Your task to perform on an android device: Go to Wikipedia Image 0: 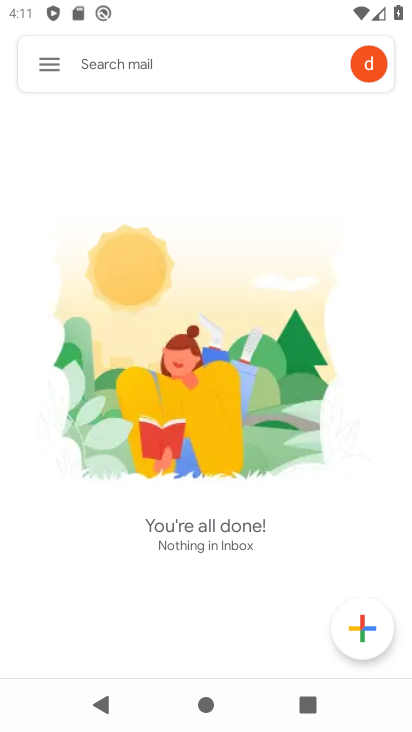
Step 0: press home button
Your task to perform on an android device: Go to Wikipedia Image 1: 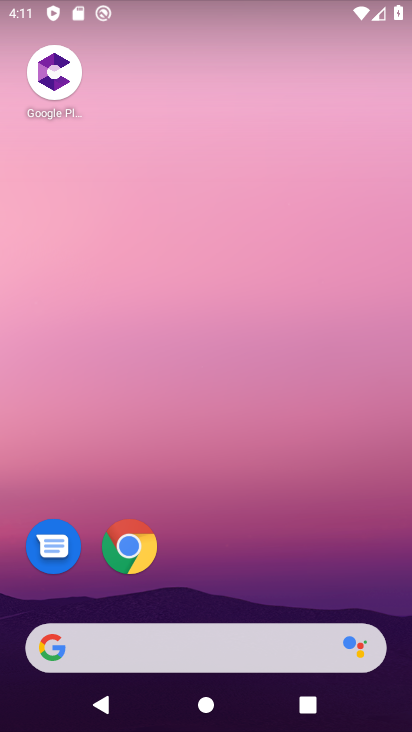
Step 1: click (129, 546)
Your task to perform on an android device: Go to Wikipedia Image 2: 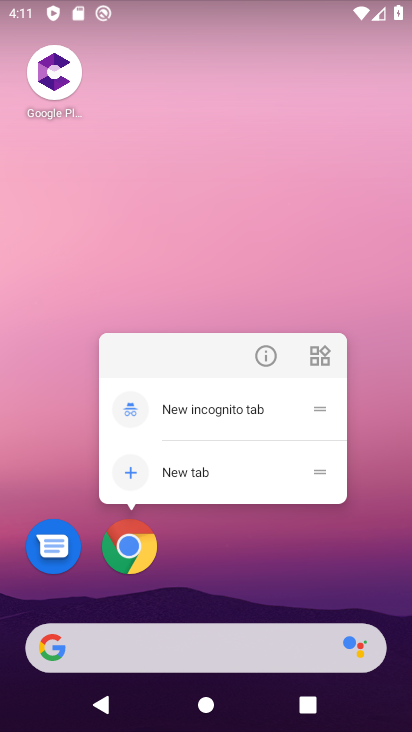
Step 2: click (147, 545)
Your task to perform on an android device: Go to Wikipedia Image 3: 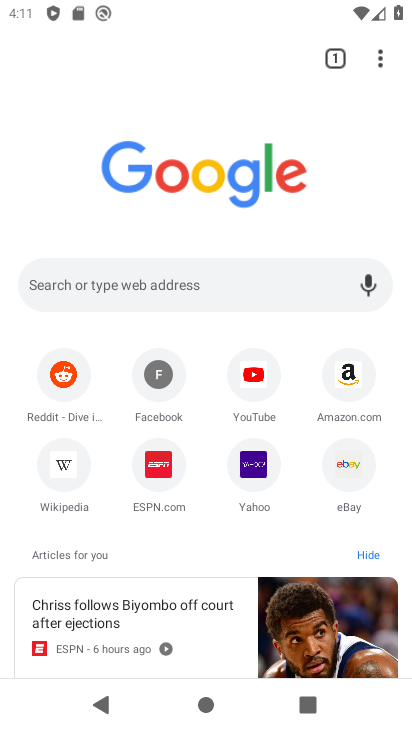
Step 3: click (60, 465)
Your task to perform on an android device: Go to Wikipedia Image 4: 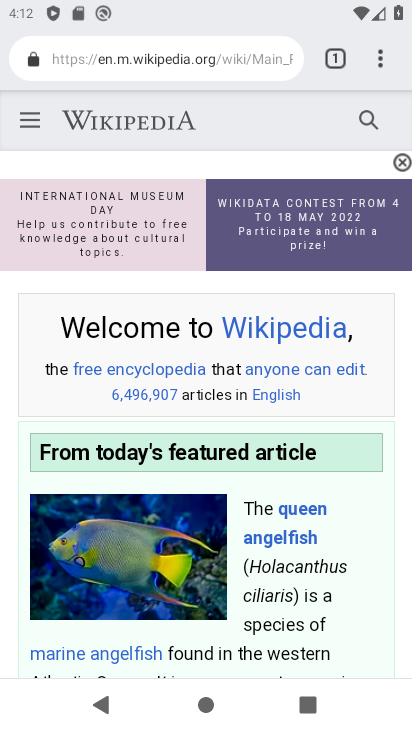
Step 4: task complete